Your task to perform on an android device: Open the map Image 0: 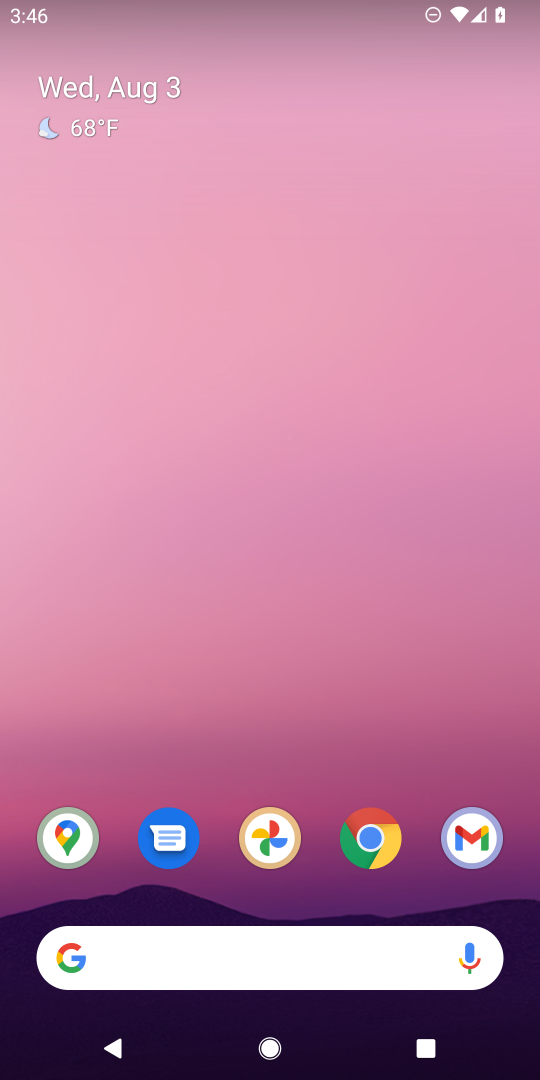
Step 0: click (74, 843)
Your task to perform on an android device: Open the map Image 1: 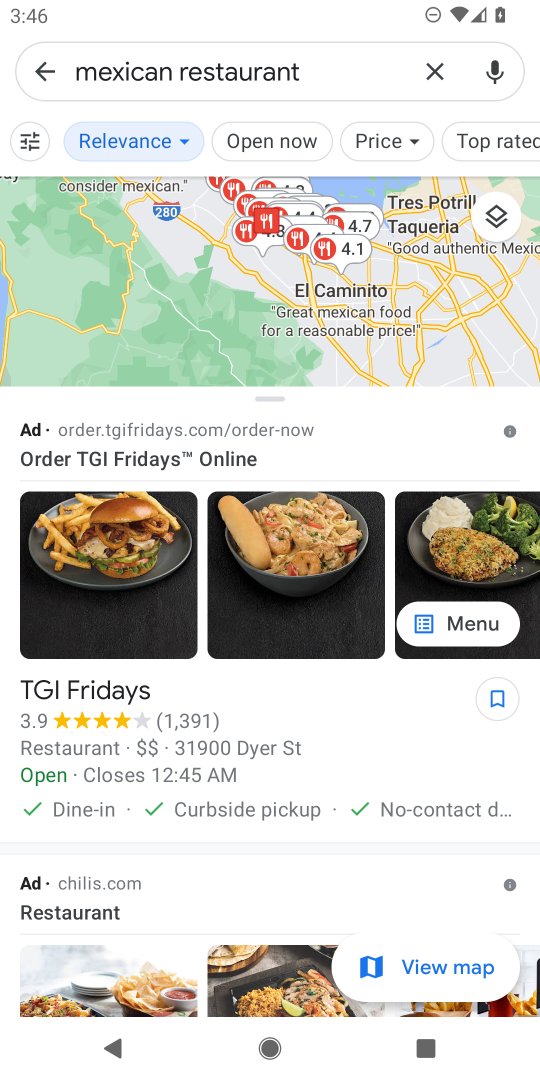
Step 1: task complete